Your task to perform on an android device: toggle improve location accuracy Image 0: 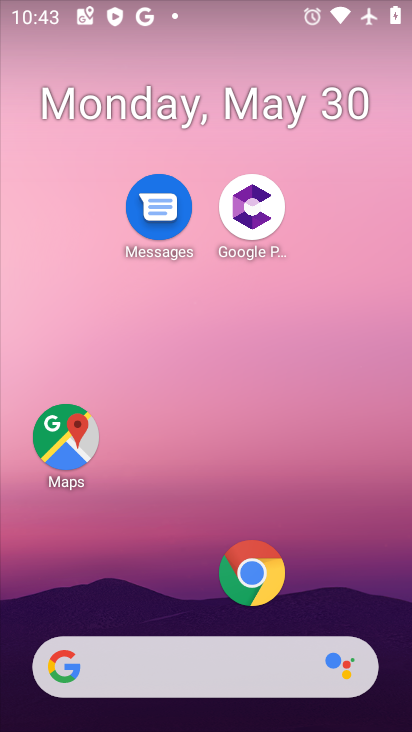
Step 0: drag from (161, 640) to (257, 121)
Your task to perform on an android device: toggle improve location accuracy Image 1: 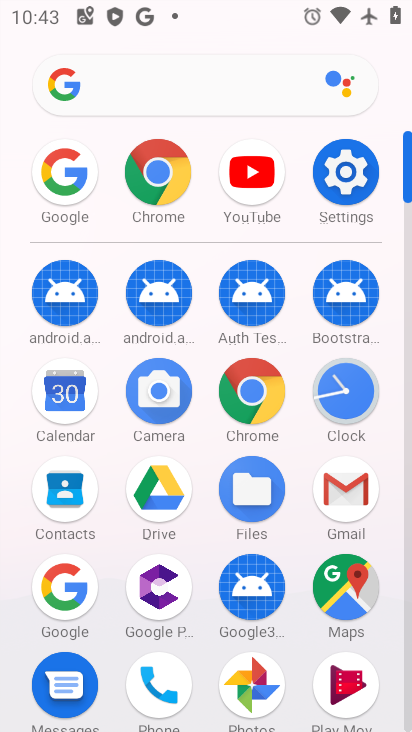
Step 1: click (333, 193)
Your task to perform on an android device: toggle improve location accuracy Image 2: 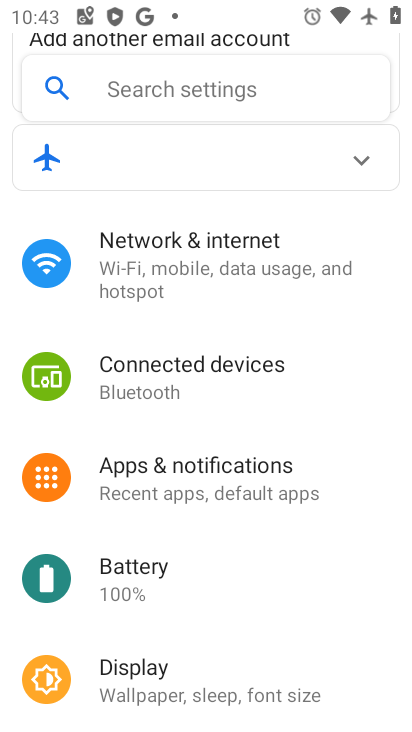
Step 2: drag from (194, 579) to (270, 288)
Your task to perform on an android device: toggle improve location accuracy Image 3: 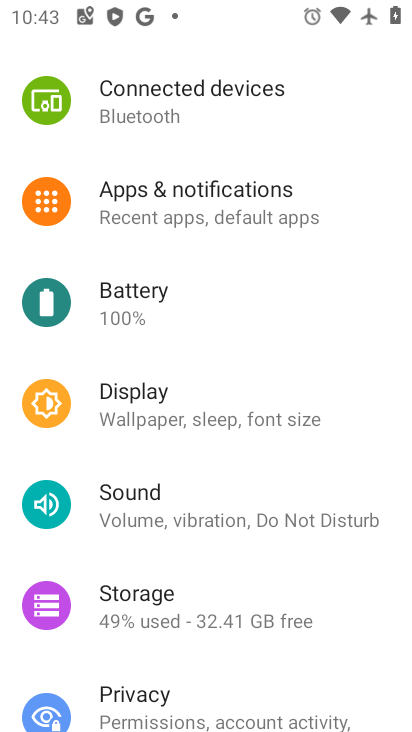
Step 3: drag from (185, 593) to (248, 341)
Your task to perform on an android device: toggle improve location accuracy Image 4: 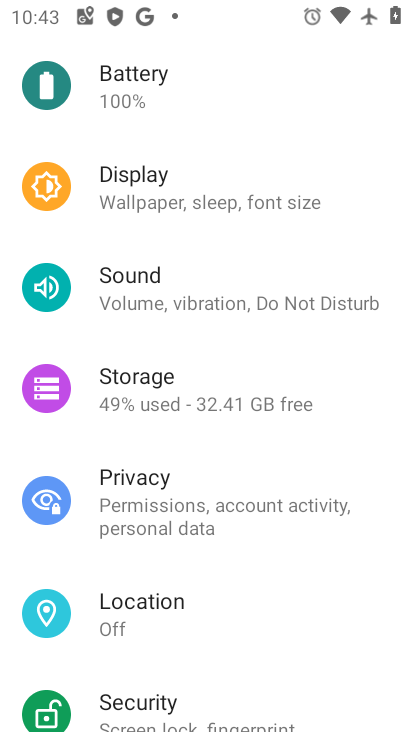
Step 4: click (168, 596)
Your task to perform on an android device: toggle improve location accuracy Image 5: 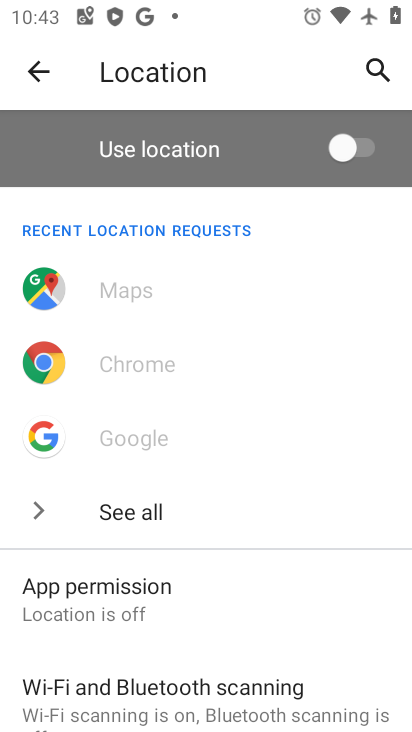
Step 5: drag from (182, 647) to (276, 267)
Your task to perform on an android device: toggle improve location accuracy Image 6: 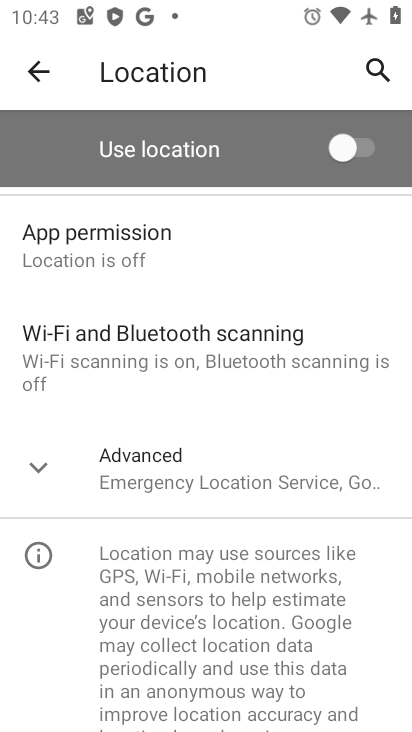
Step 6: click (242, 476)
Your task to perform on an android device: toggle improve location accuracy Image 7: 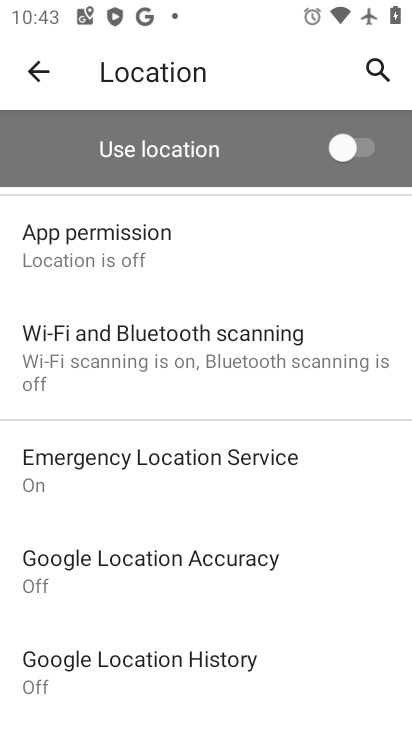
Step 7: click (221, 567)
Your task to perform on an android device: toggle improve location accuracy Image 8: 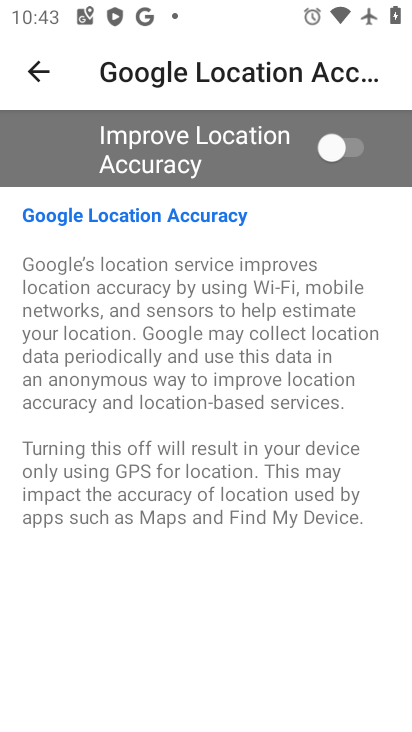
Step 8: click (371, 138)
Your task to perform on an android device: toggle improve location accuracy Image 9: 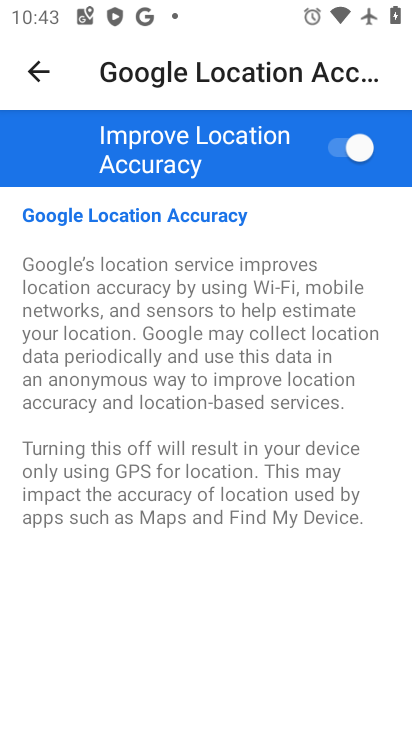
Step 9: task complete